Your task to perform on an android device: turn on bluetooth scan Image 0: 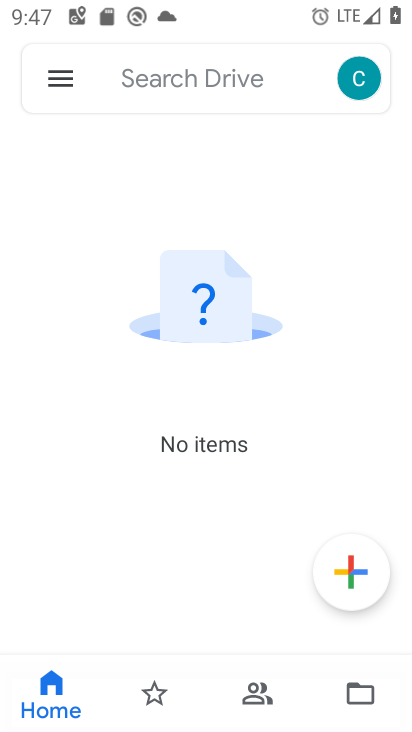
Step 0: press home button
Your task to perform on an android device: turn on bluetooth scan Image 1: 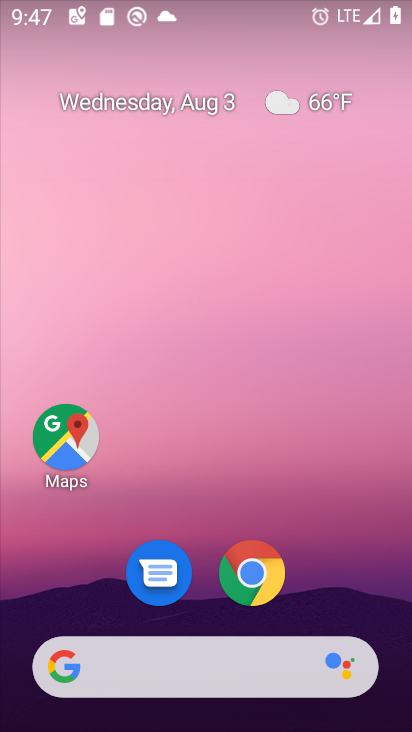
Step 1: drag from (324, 608) to (235, 21)
Your task to perform on an android device: turn on bluetooth scan Image 2: 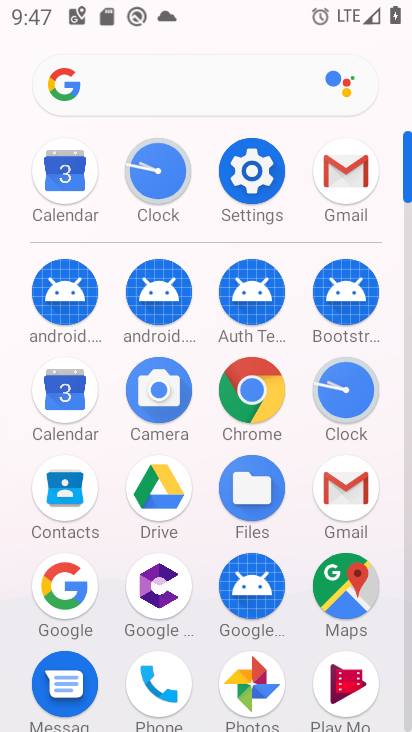
Step 2: click (249, 179)
Your task to perform on an android device: turn on bluetooth scan Image 3: 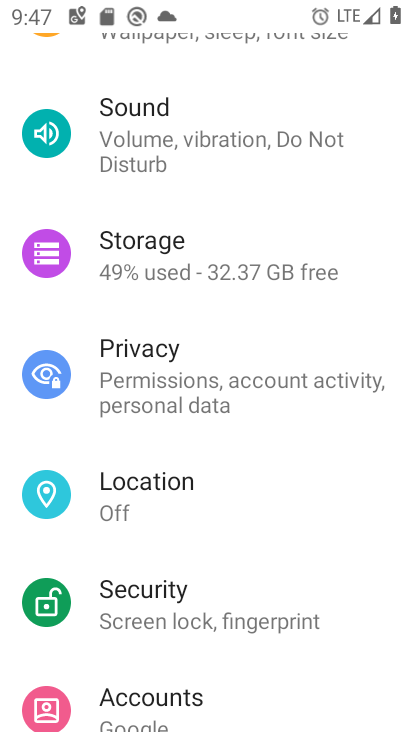
Step 3: click (122, 513)
Your task to perform on an android device: turn on bluetooth scan Image 4: 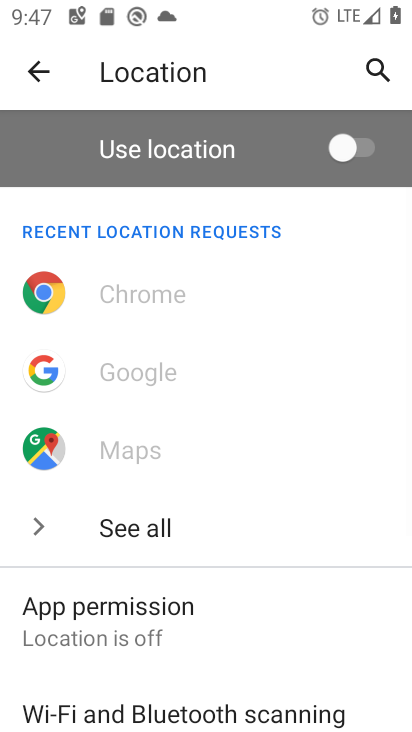
Step 4: drag from (310, 593) to (296, 334)
Your task to perform on an android device: turn on bluetooth scan Image 5: 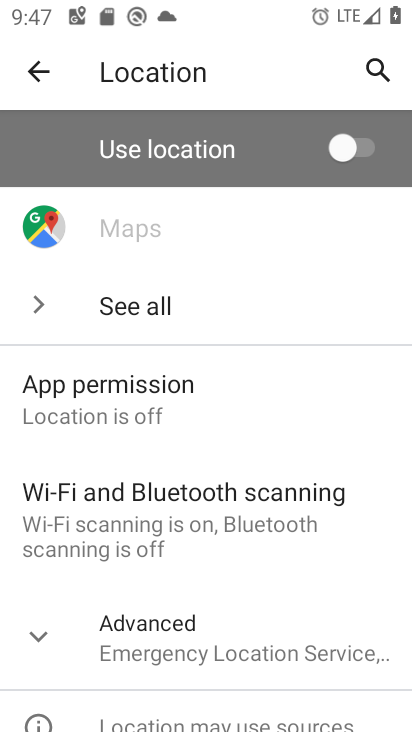
Step 5: click (139, 523)
Your task to perform on an android device: turn on bluetooth scan Image 6: 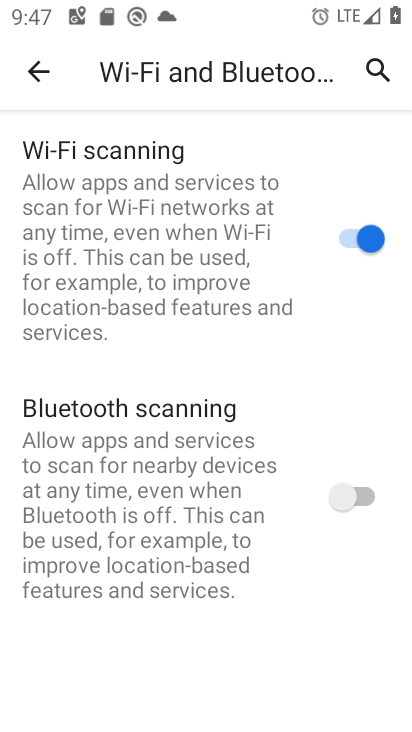
Step 6: click (345, 498)
Your task to perform on an android device: turn on bluetooth scan Image 7: 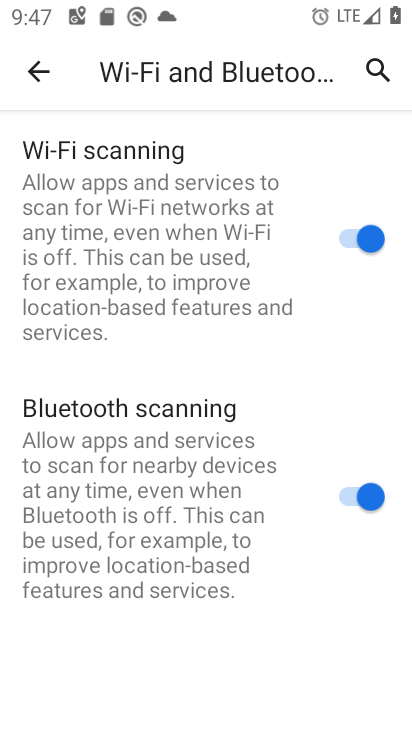
Step 7: task complete